Your task to perform on an android device: Open location settings Image 0: 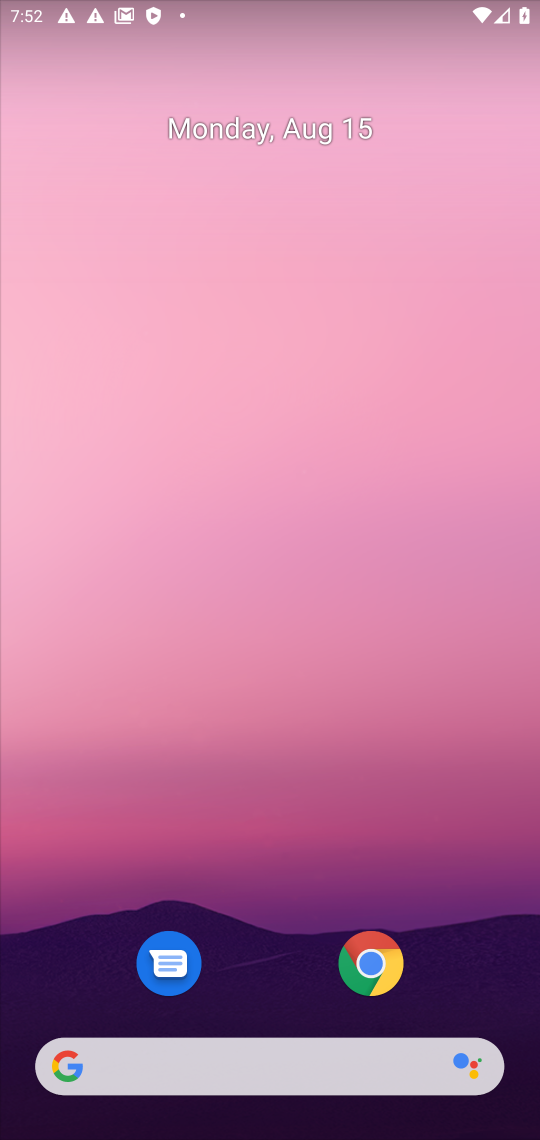
Step 0: drag from (267, 993) to (290, 86)
Your task to perform on an android device: Open location settings Image 1: 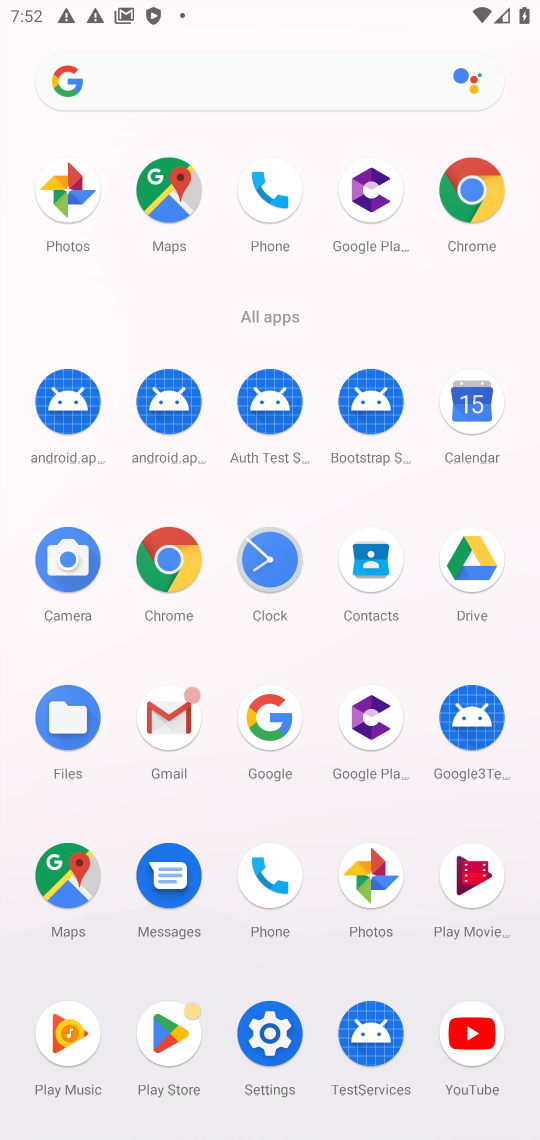
Step 1: click (289, 1037)
Your task to perform on an android device: Open location settings Image 2: 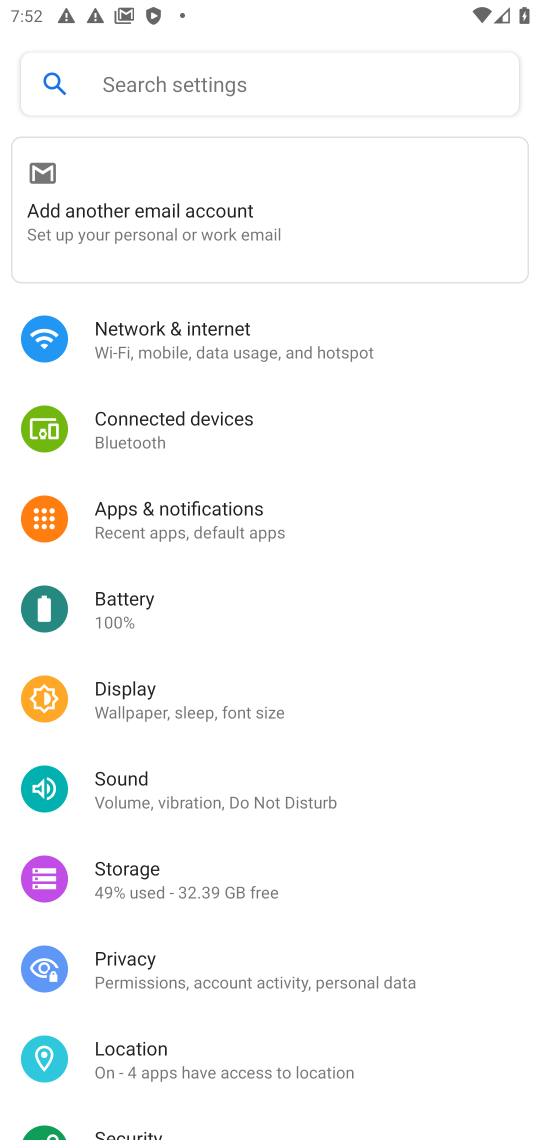
Step 2: click (193, 1069)
Your task to perform on an android device: Open location settings Image 3: 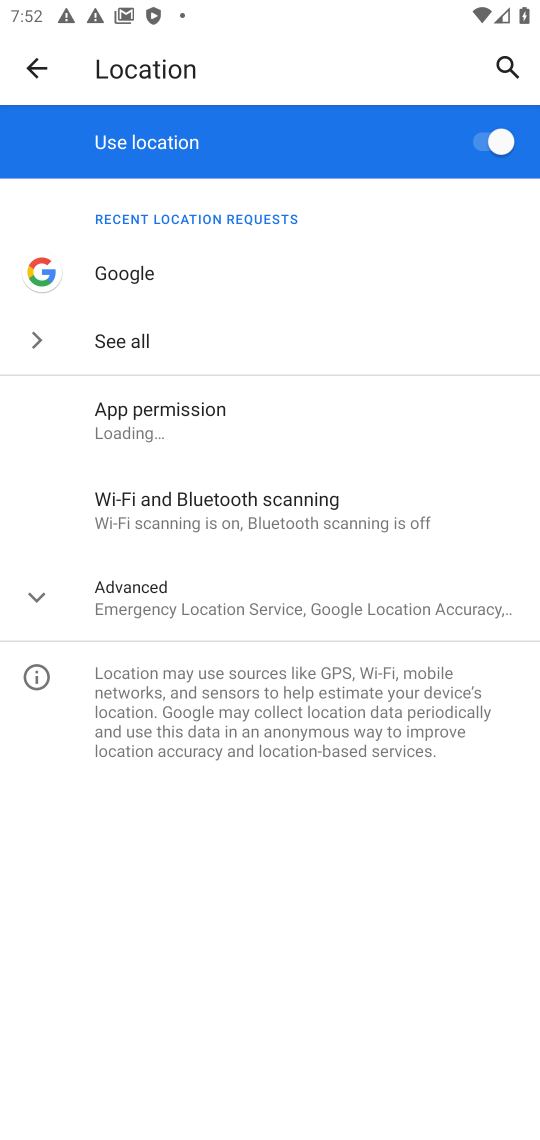
Step 3: task complete